Your task to perform on an android device: change text size in settings app Image 0: 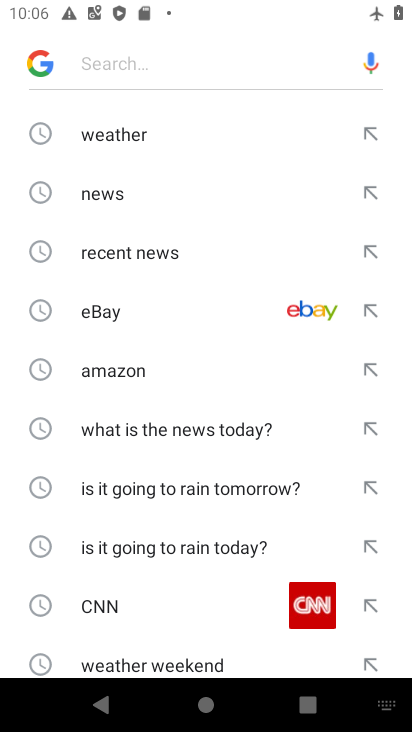
Step 0: press home button
Your task to perform on an android device: change text size in settings app Image 1: 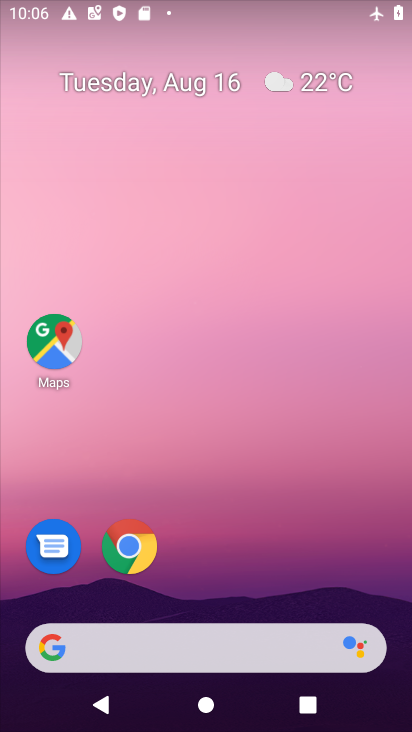
Step 1: drag from (236, 558) to (248, 20)
Your task to perform on an android device: change text size in settings app Image 2: 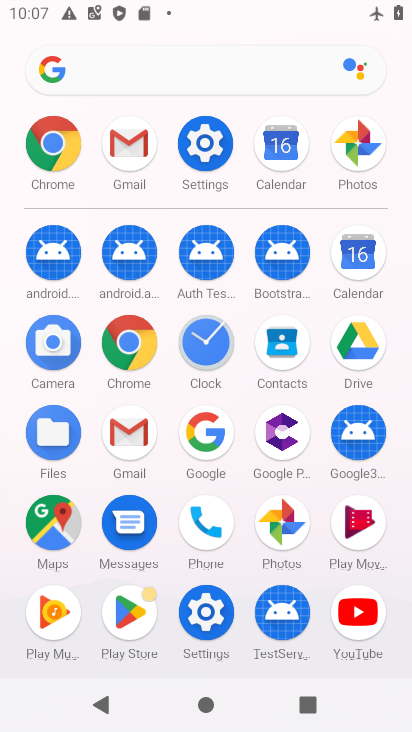
Step 2: click (205, 141)
Your task to perform on an android device: change text size in settings app Image 3: 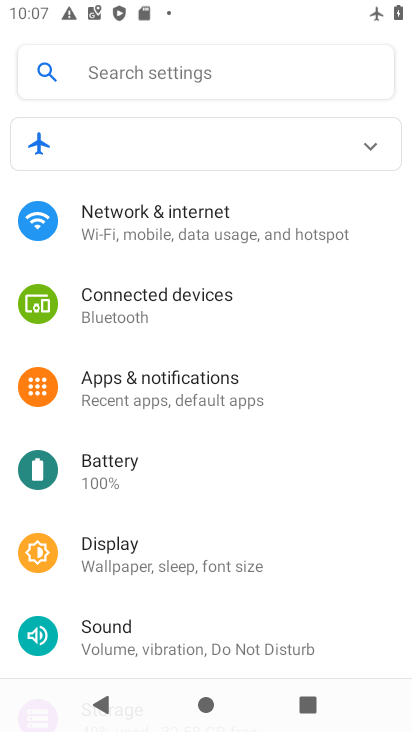
Step 3: click (156, 558)
Your task to perform on an android device: change text size in settings app Image 4: 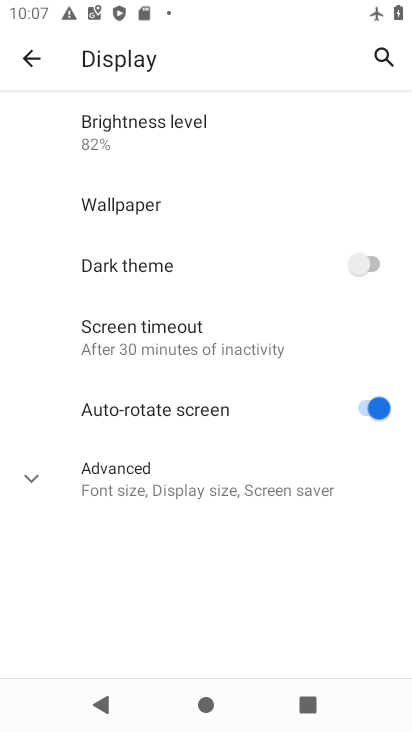
Step 4: click (27, 468)
Your task to perform on an android device: change text size in settings app Image 5: 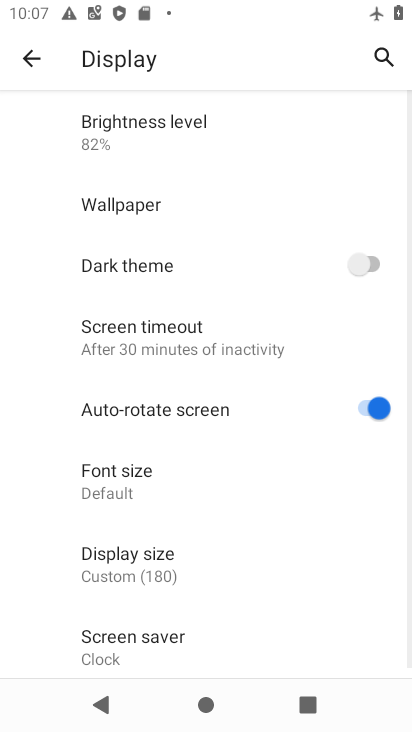
Step 5: click (118, 476)
Your task to perform on an android device: change text size in settings app Image 6: 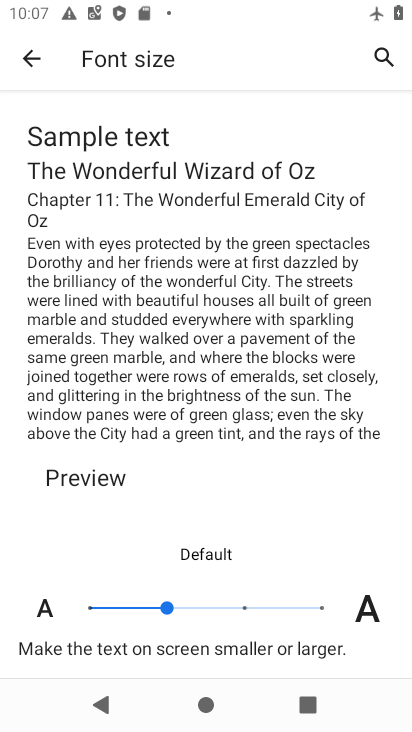
Step 6: click (239, 605)
Your task to perform on an android device: change text size in settings app Image 7: 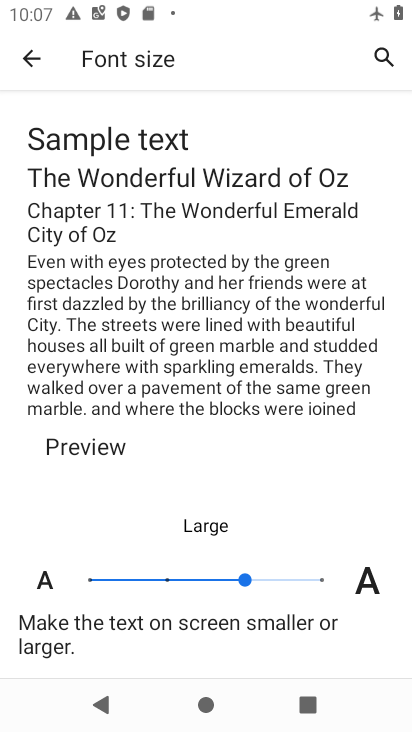
Step 7: task complete